Your task to perform on an android device: toggle airplane mode Image 0: 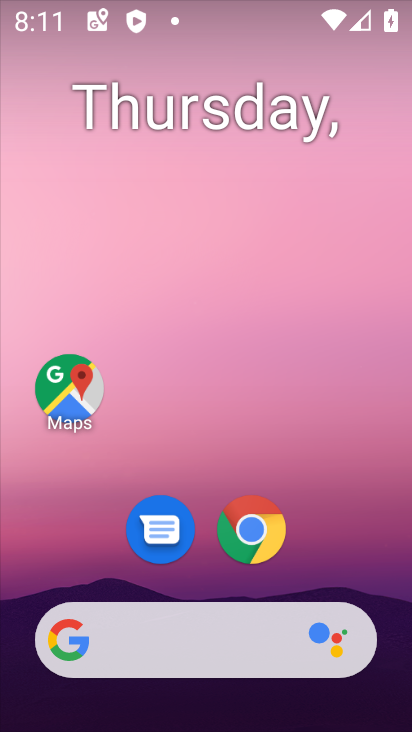
Step 0: drag from (177, 642) to (357, 65)
Your task to perform on an android device: toggle airplane mode Image 1: 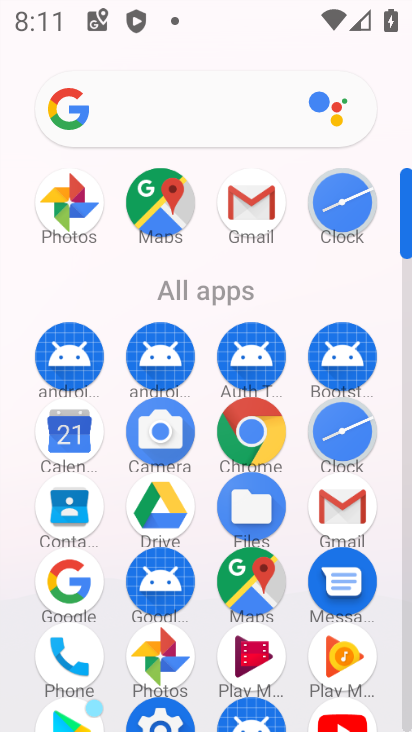
Step 1: drag from (193, 612) to (291, 155)
Your task to perform on an android device: toggle airplane mode Image 2: 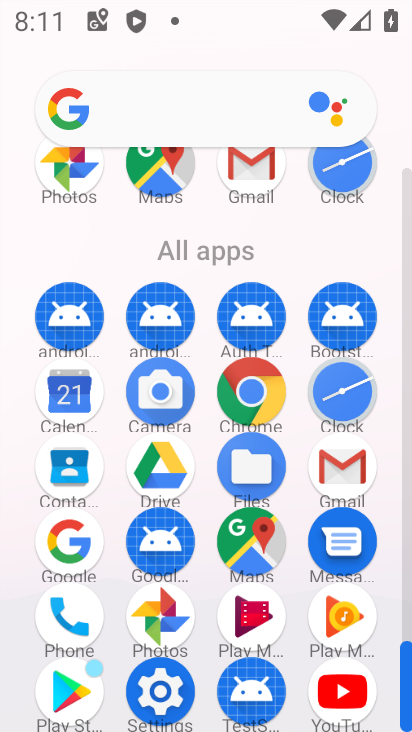
Step 2: click (154, 693)
Your task to perform on an android device: toggle airplane mode Image 3: 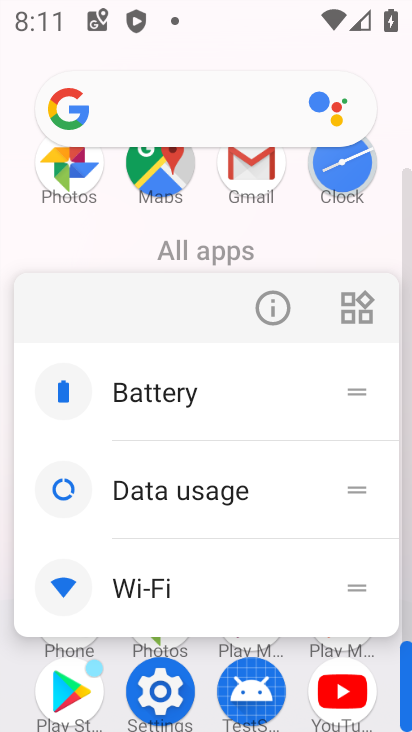
Step 3: click (161, 697)
Your task to perform on an android device: toggle airplane mode Image 4: 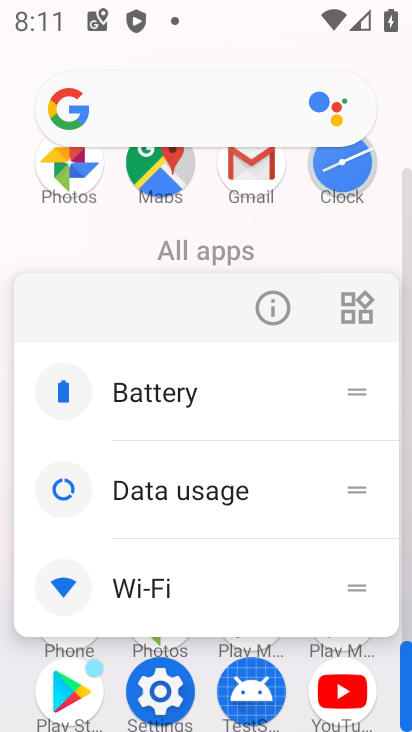
Step 4: click (161, 697)
Your task to perform on an android device: toggle airplane mode Image 5: 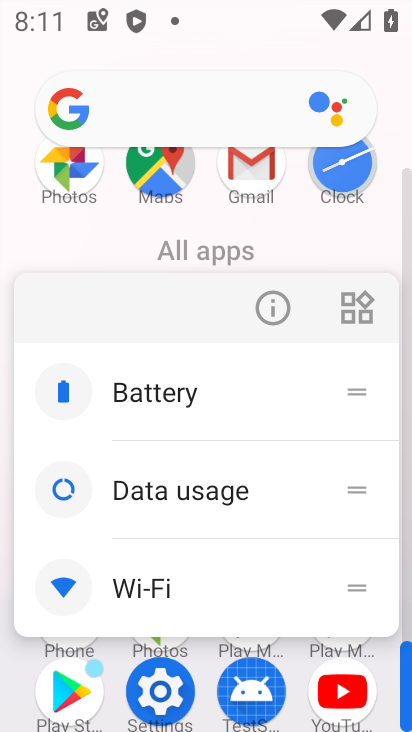
Step 5: click (163, 705)
Your task to perform on an android device: toggle airplane mode Image 6: 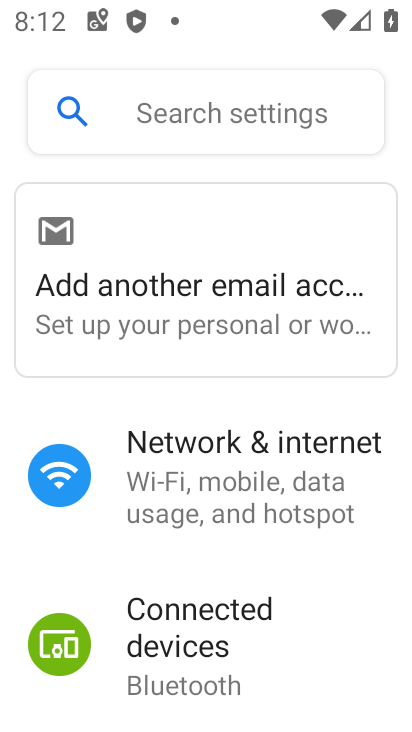
Step 6: click (233, 451)
Your task to perform on an android device: toggle airplane mode Image 7: 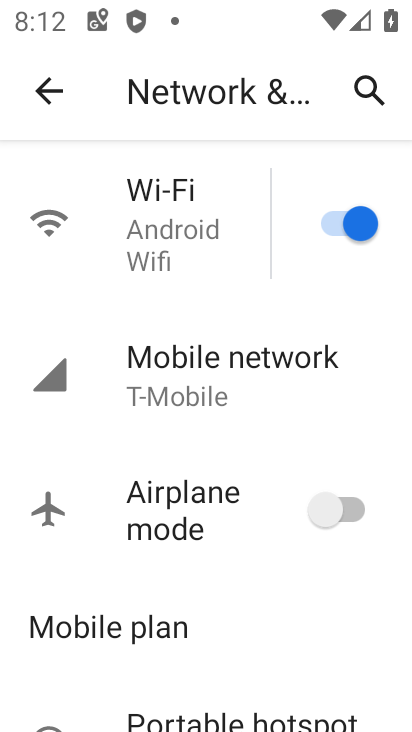
Step 7: click (352, 513)
Your task to perform on an android device: toggle airplane mode Image 8: 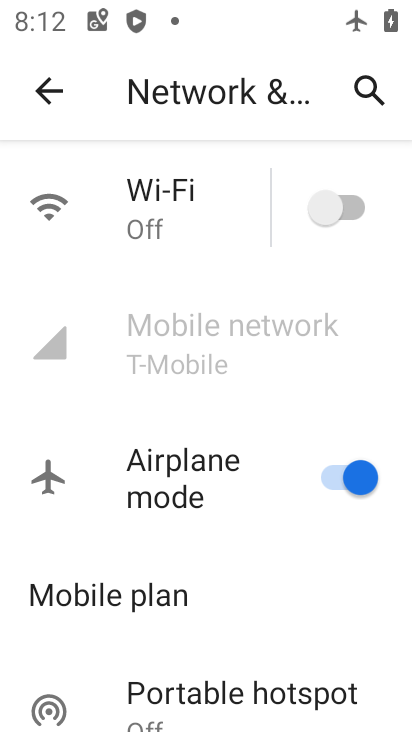
Step 8: task complete